Your task to perform on an android device: Open accessibility settings Image 0: 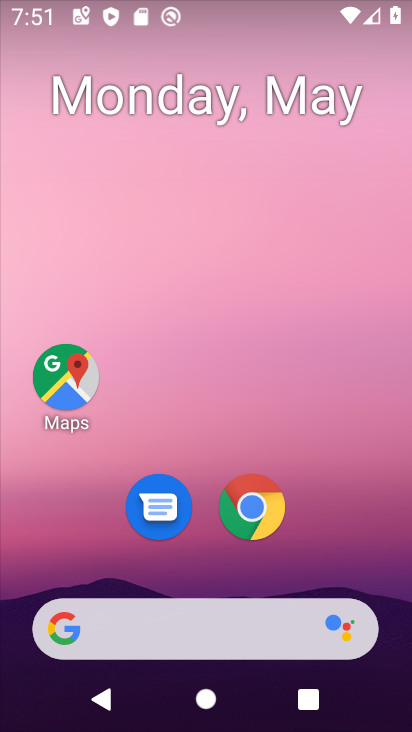
Step 0: drag from (208, 575) to (242, 88)
Your task to perform on an android device: Open accessibility settings Image 1: 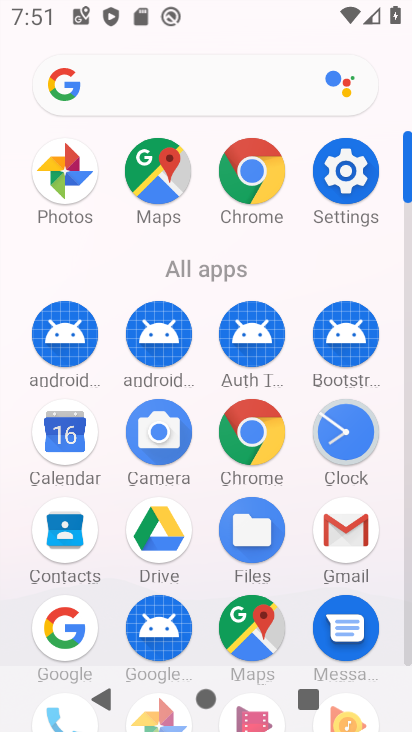
Step 1: click (346, 160)
Your task to perform on an android device: Open accessibility settings Image 2: 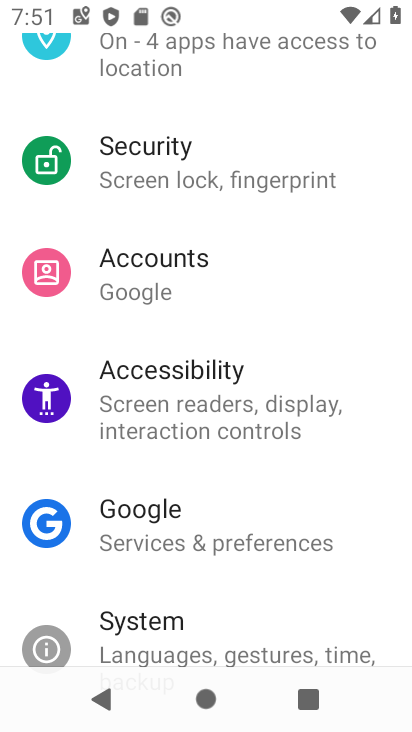
Step 2: click (189, 373)
Your task to perform on an android device: Open accessibility settings Image 3: 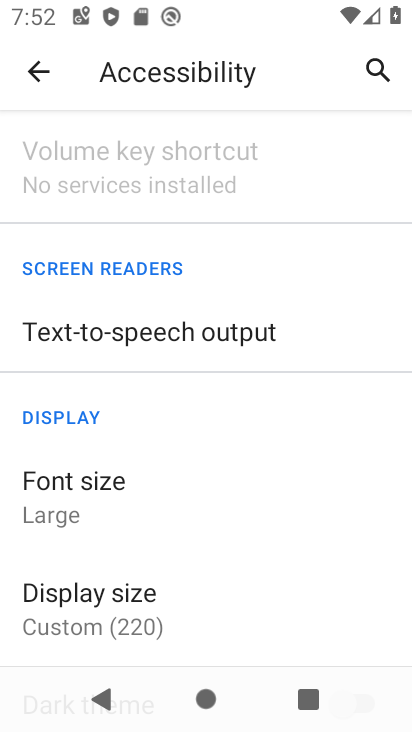
Step 3: task complete